Your task to perform on an android device: Search for "dell alienware" on newegg.com, select the first entry, add it to the cart, then select checkout. Image 0: 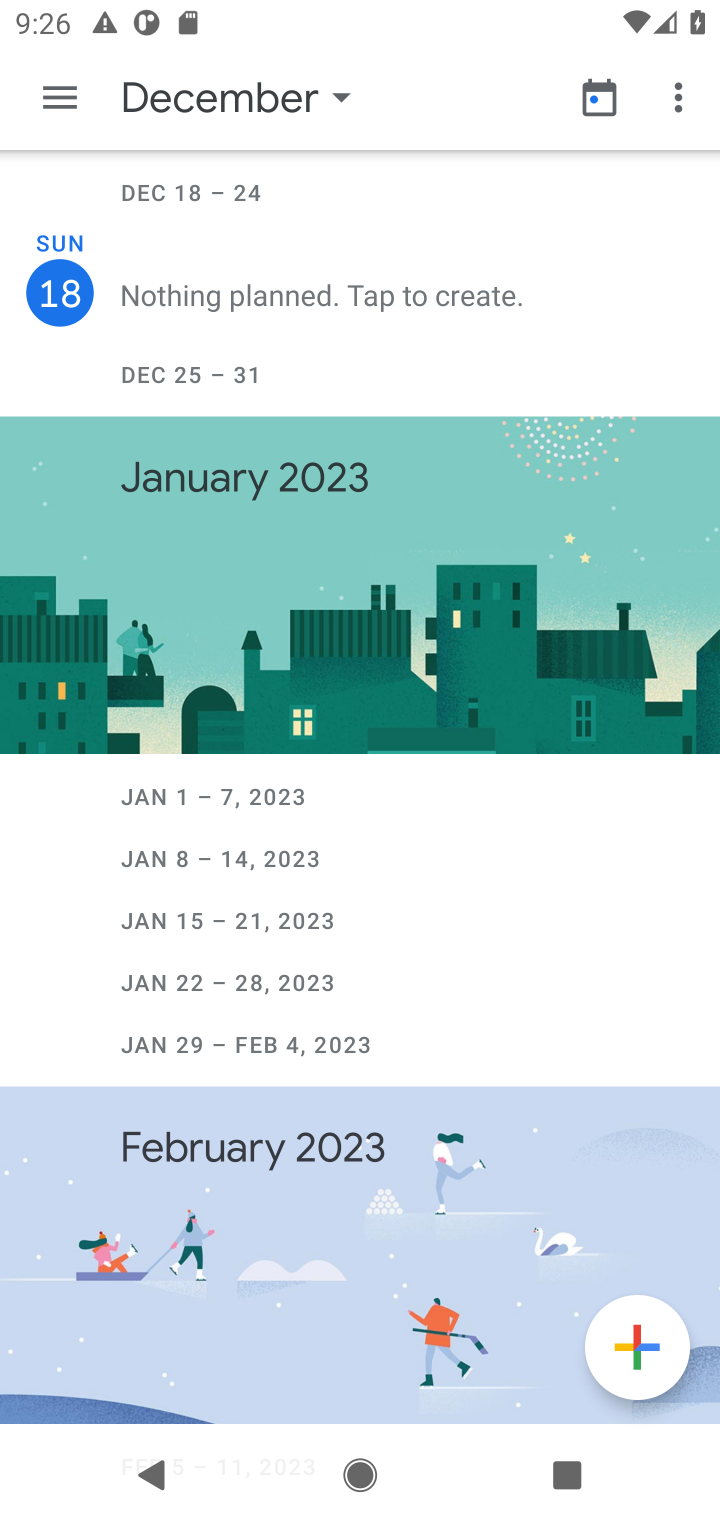
Step 0: press home button
Your task to perform on an android device: Search for "dell alienware" on newegg.com, select the first entry, add it to the cart, then select checkout. Image 1: 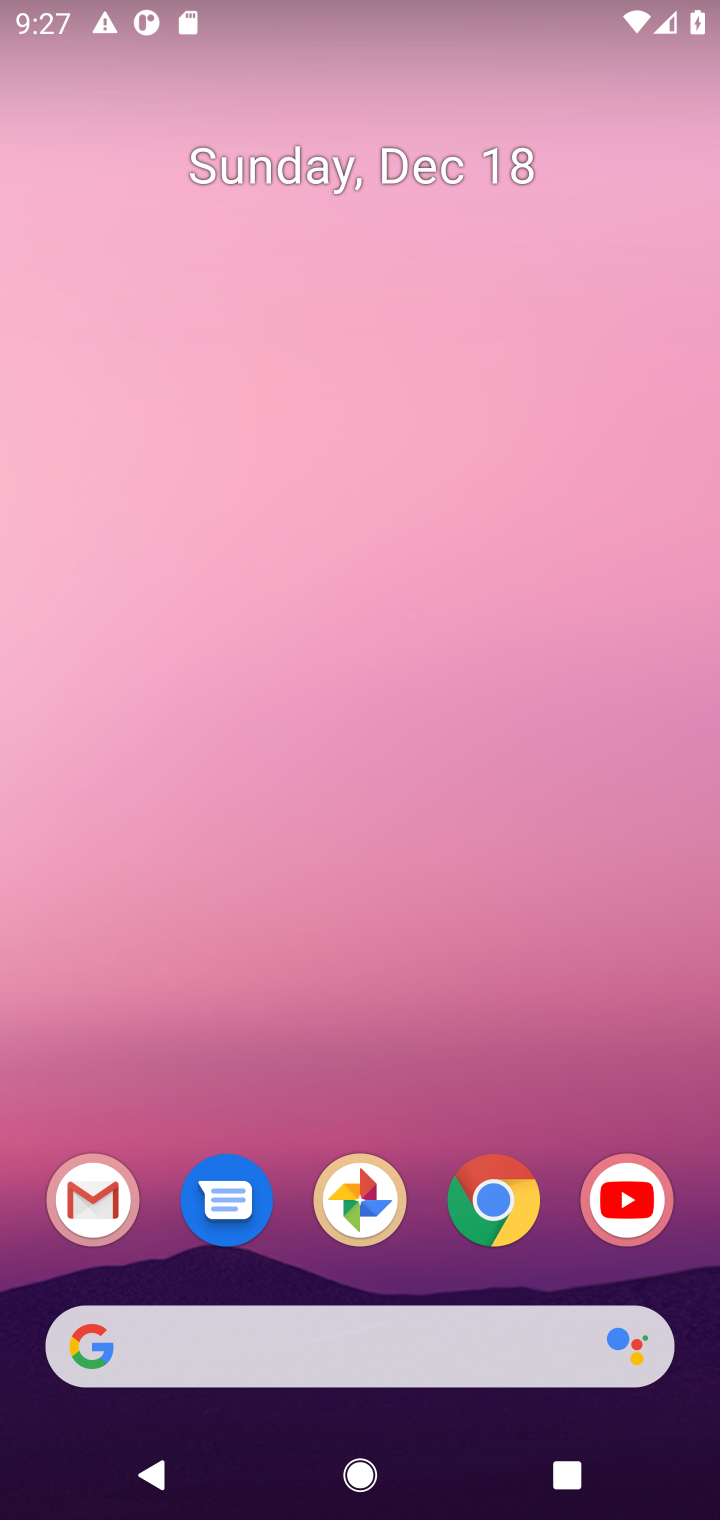
Step 1: click (497, 1214)
Your task to perform on an android device: Search for "dell alienware" on newegg.com, select the first entry, add it to the cart, then select checkout. Image 2: 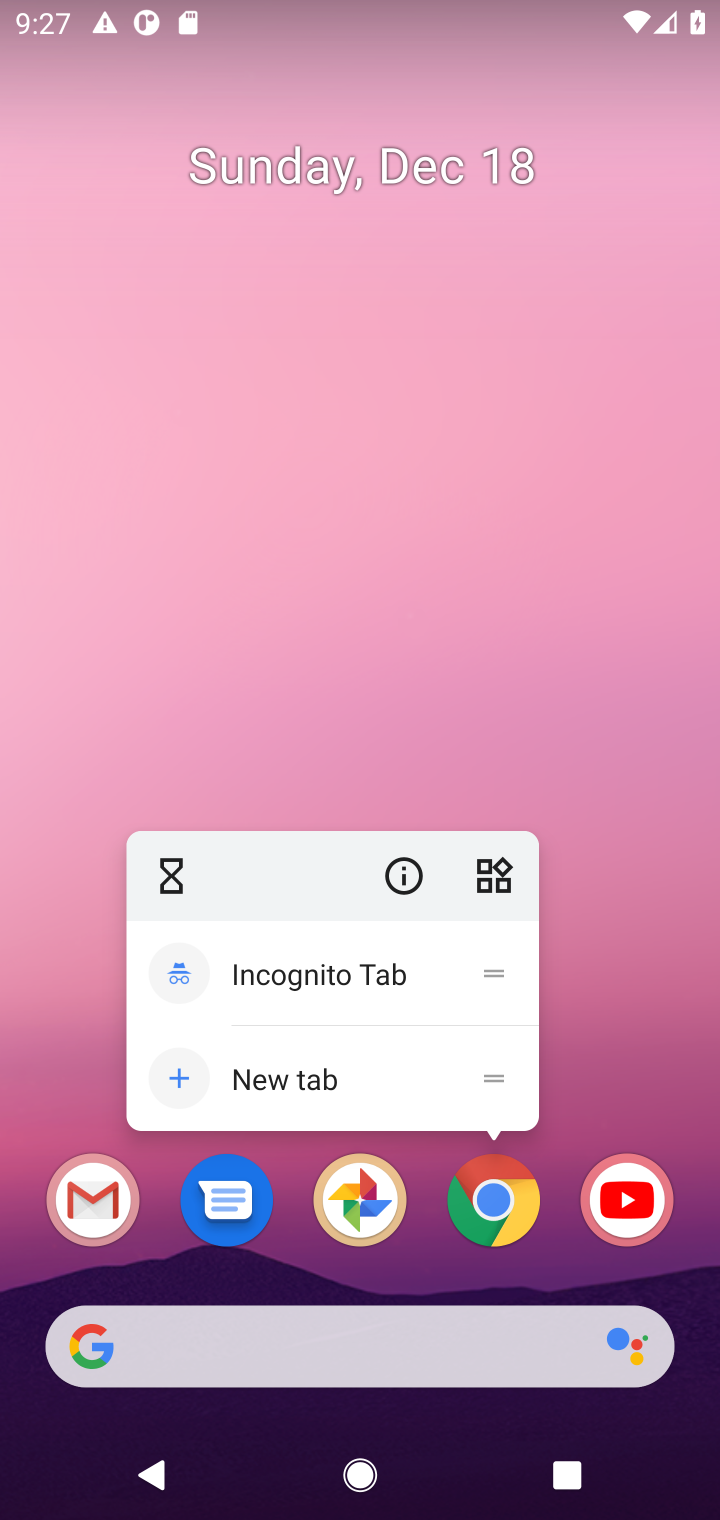
Step 2: click (497, 1214)
Your task to perform on an android device: Search for "dell alienware" on newegg.com, select the first entry, add it to the cart, then select checkout. Image 3: 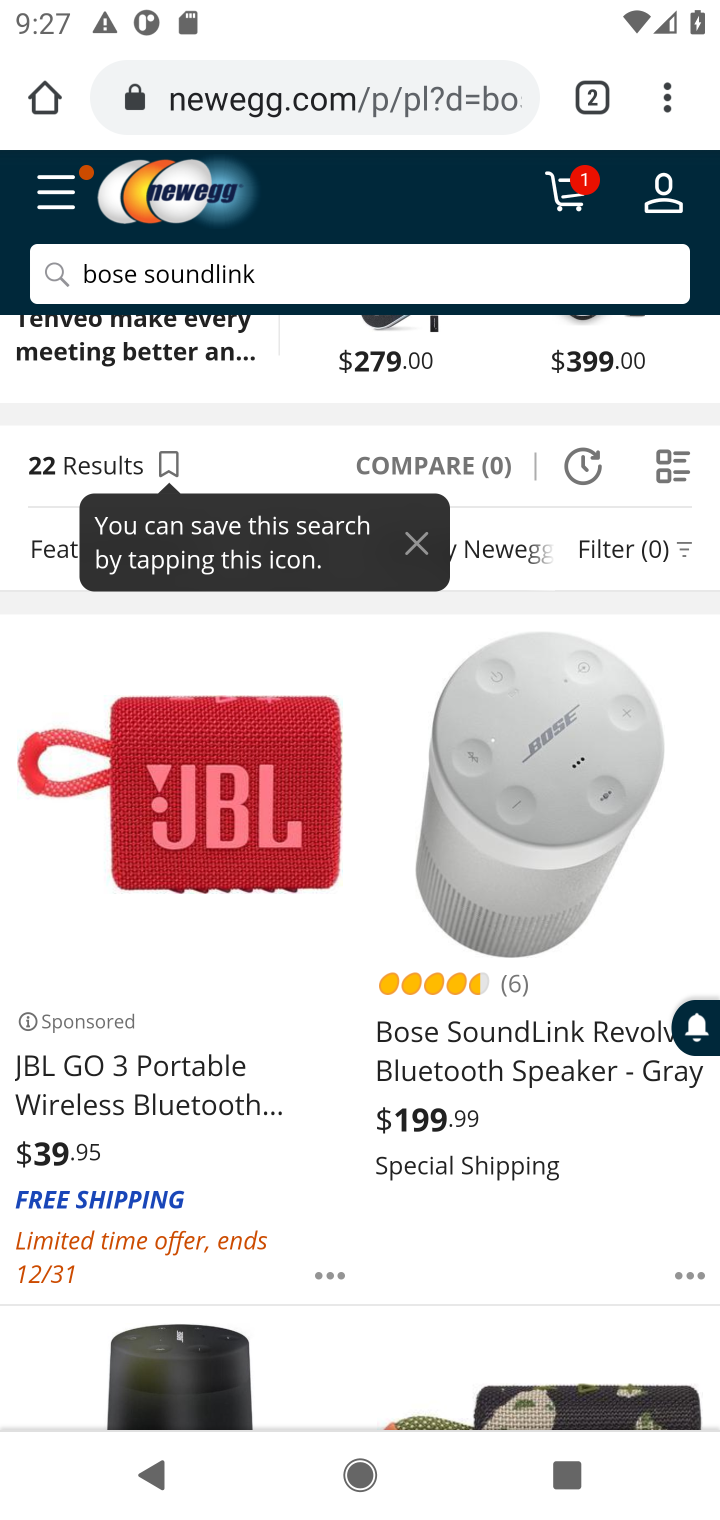
Step 3: click (254, 272)
Your task to perform on an android device: Search for "dell alienware" on newegg.com, select the first entry, add it to the cart, then select checkout. Image 4: 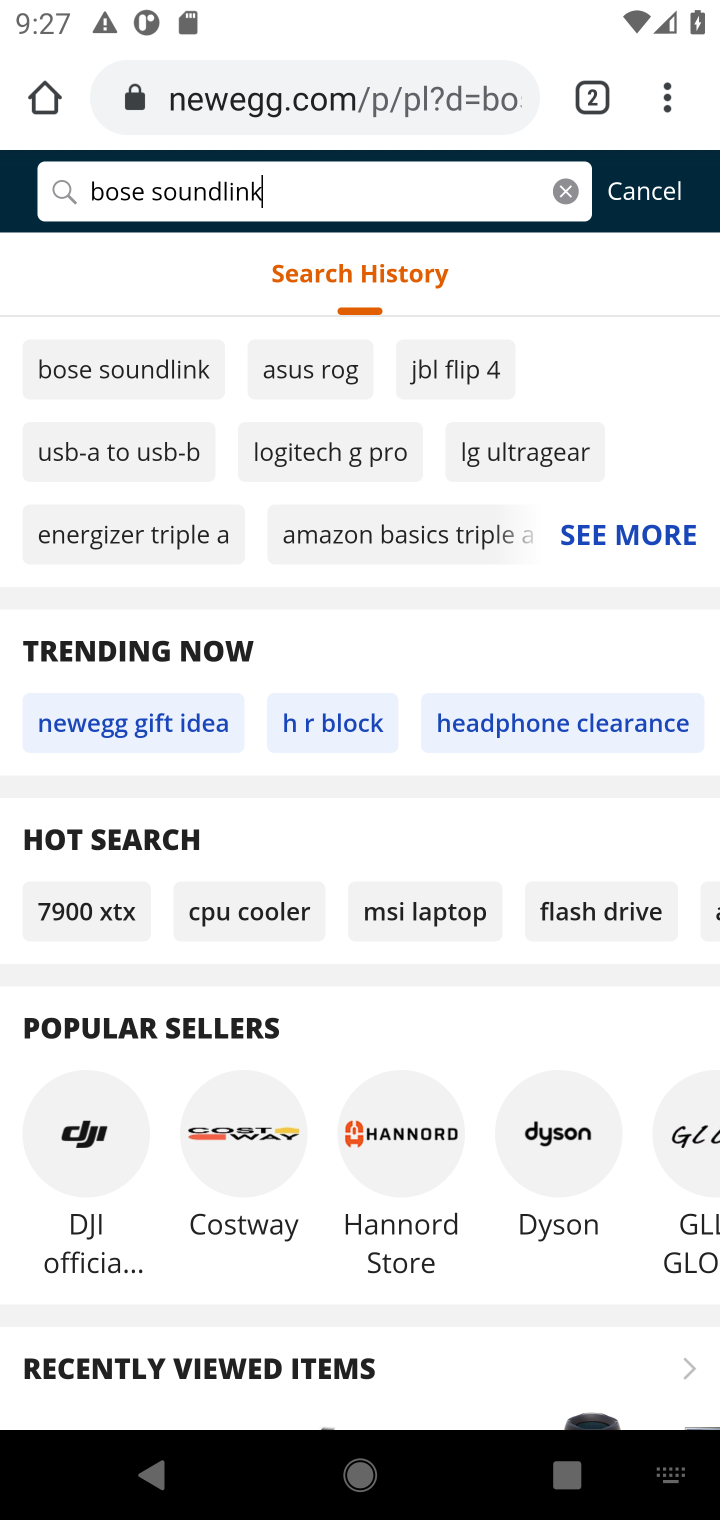
Step 4: click (568, 194)
Your task to perform on an android device: Search for "dell alienware" on newegg.com, select the first entry, add it to the cart, then select checkout. Image 5: 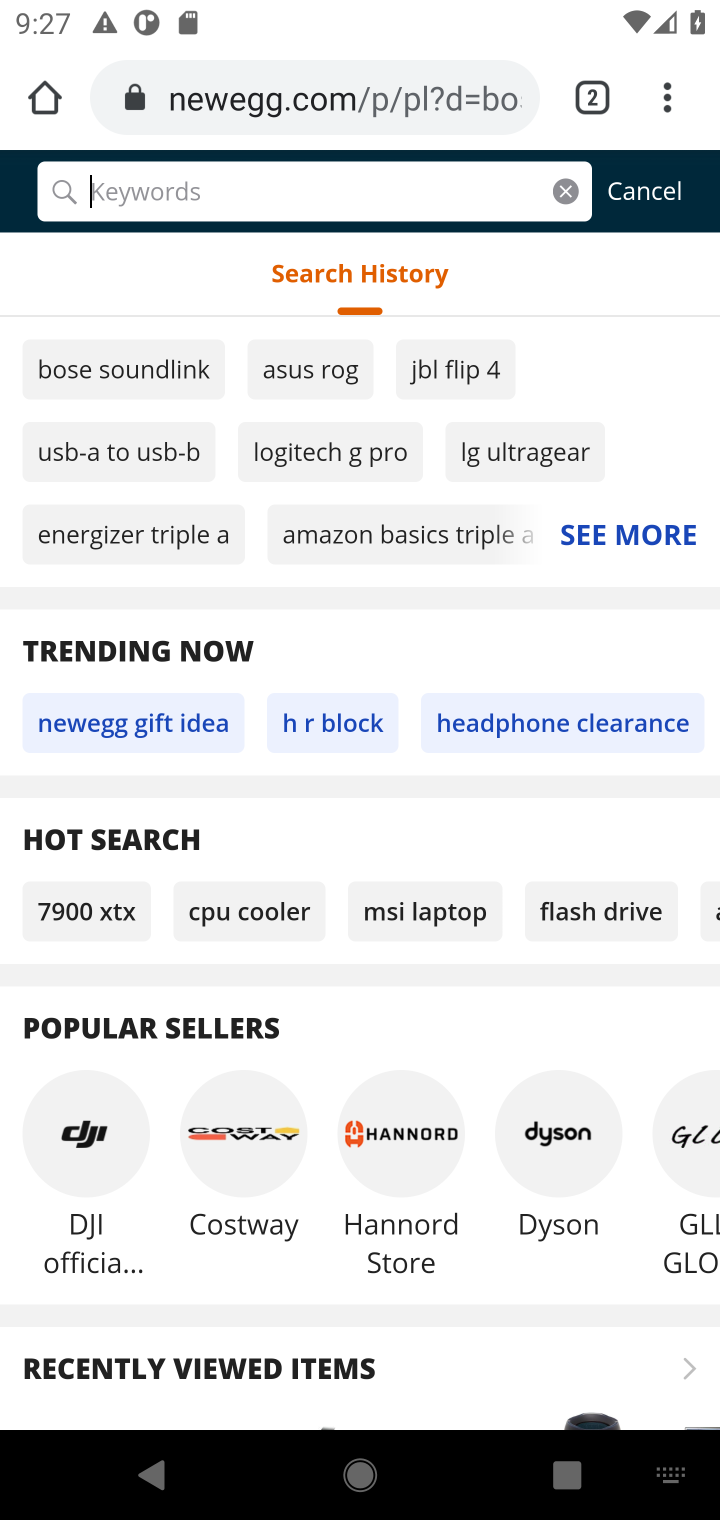
Step 5: click (104, 200)
Your task to perform on an android device: Search for "dell alienware" on newegg.com, select the first entry, add it to the cart, then select checkout. Image 6: 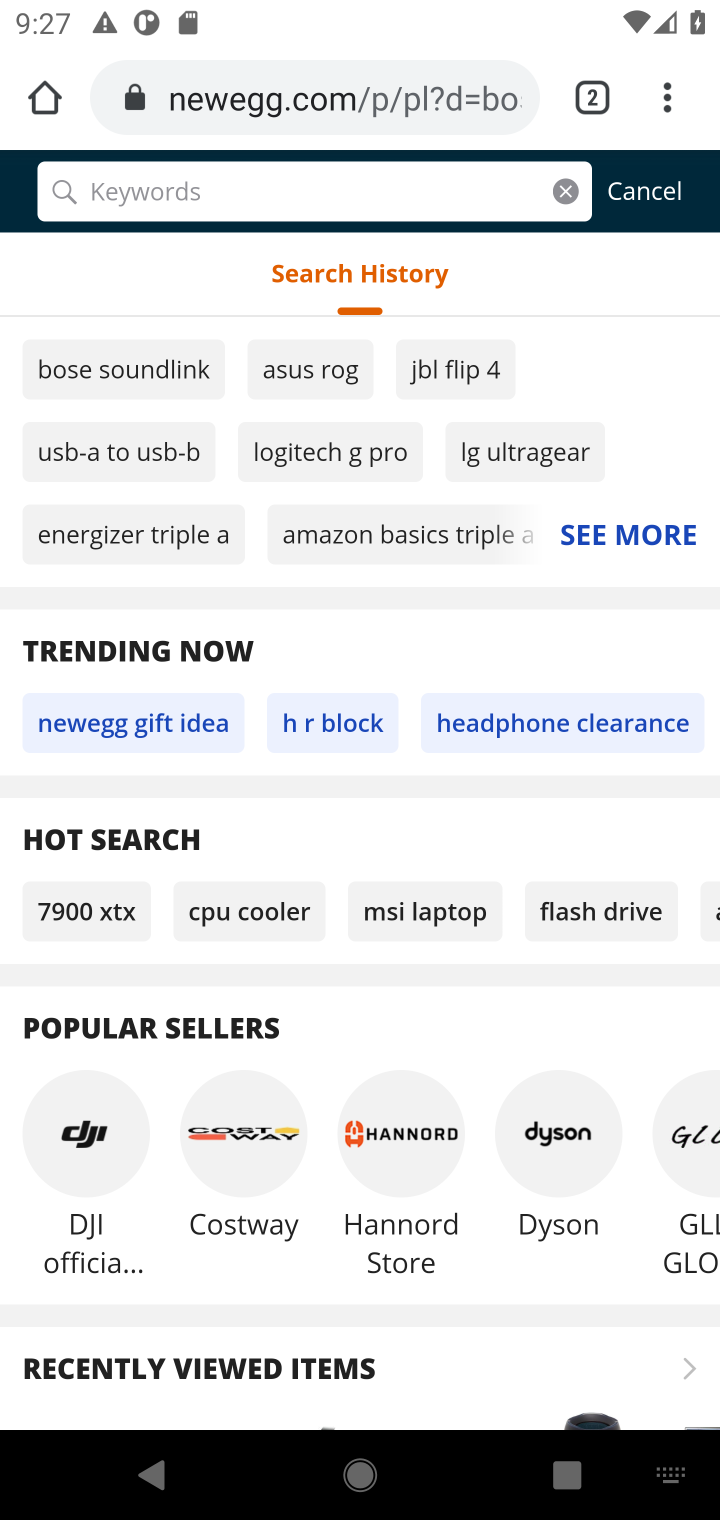
Step 6: type "dell alienware"
Your task to perform on an android device: Search for "dell alienware" on newegg.com, select the first entry, add it to the cart, then select checkout. Image 7: 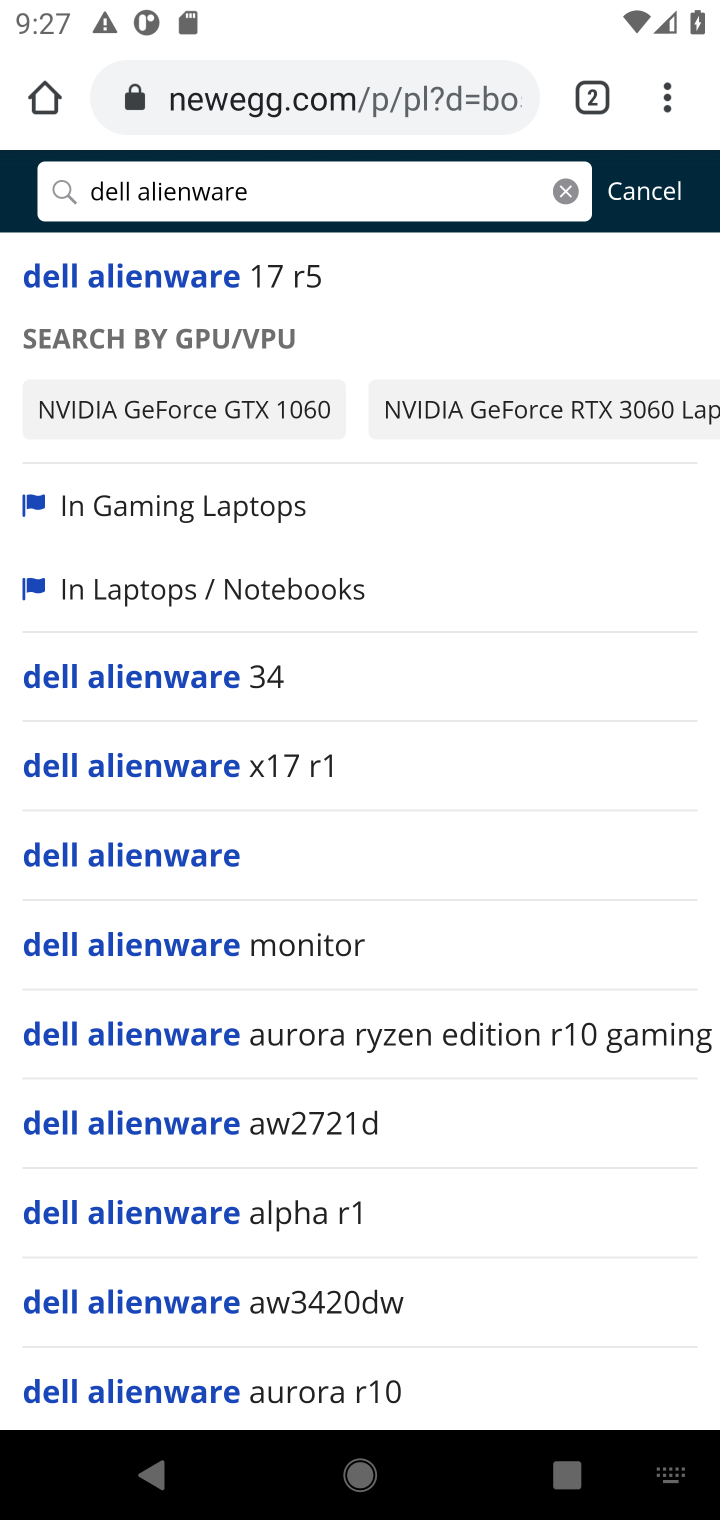
Step 7: click (110, 850)
Your task to perform on an android device: Search for "dell alienware" on newegg.com, select the first entry, add it to the cart, then select checkout. Image 8: 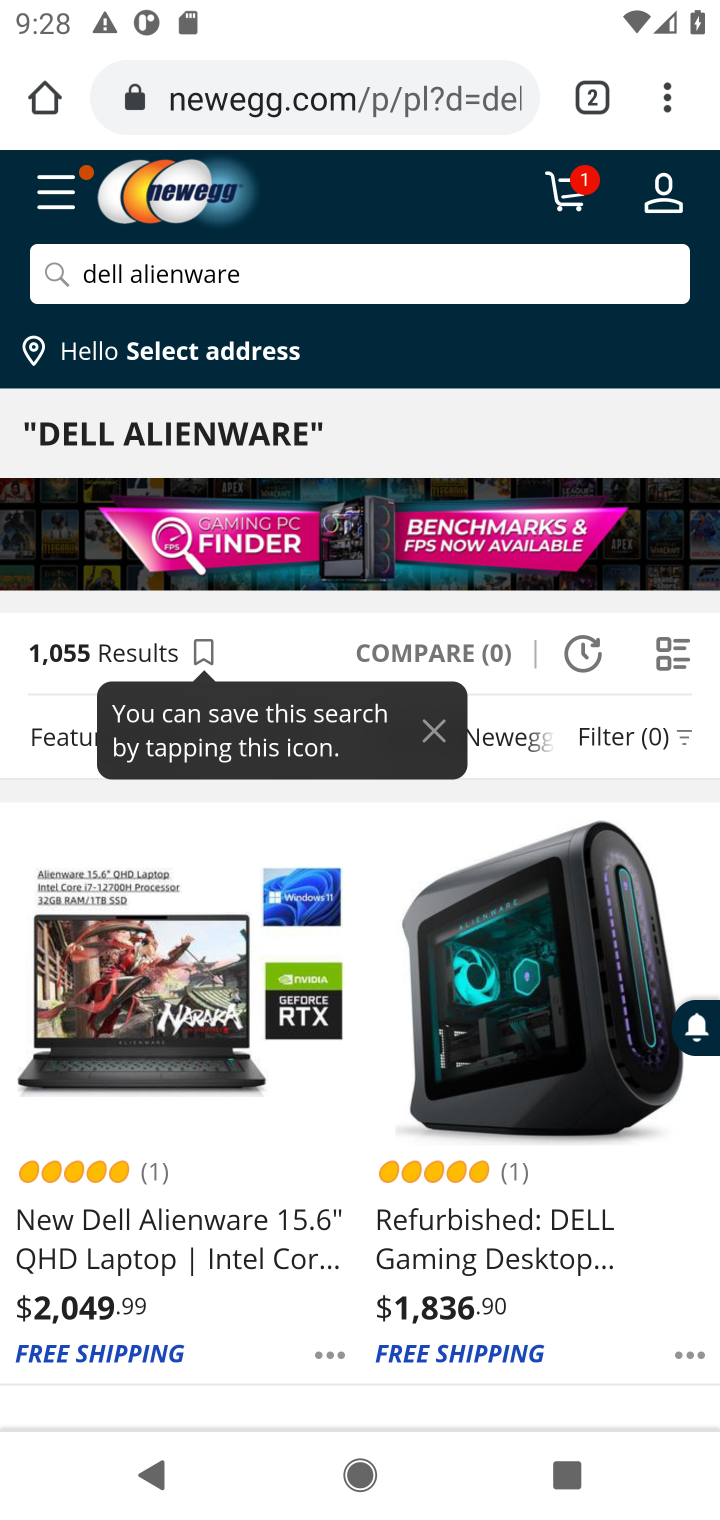
Step 8: drag from (134, 1009) to (148, 638)
Your task to perform on an android device: Search for "dell alienware" on newegg.com, select the first entry, add it to the cart, then select checkout. Image 9: 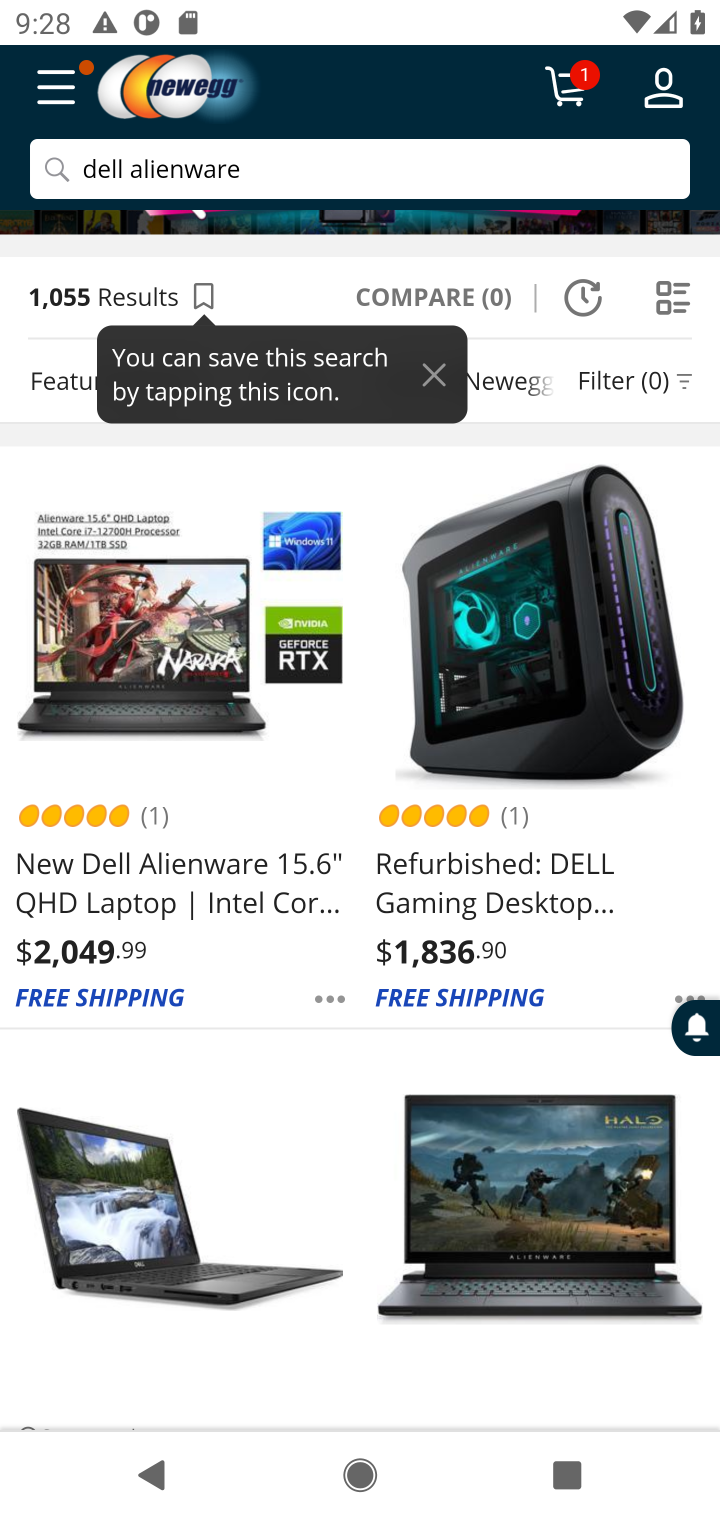
Step 9: click (164, 924)
Your task to perform on an android device: Search for "dell alienware" on newegg.com, select the first entry, add it to the cart, then select checkout. Image 10: 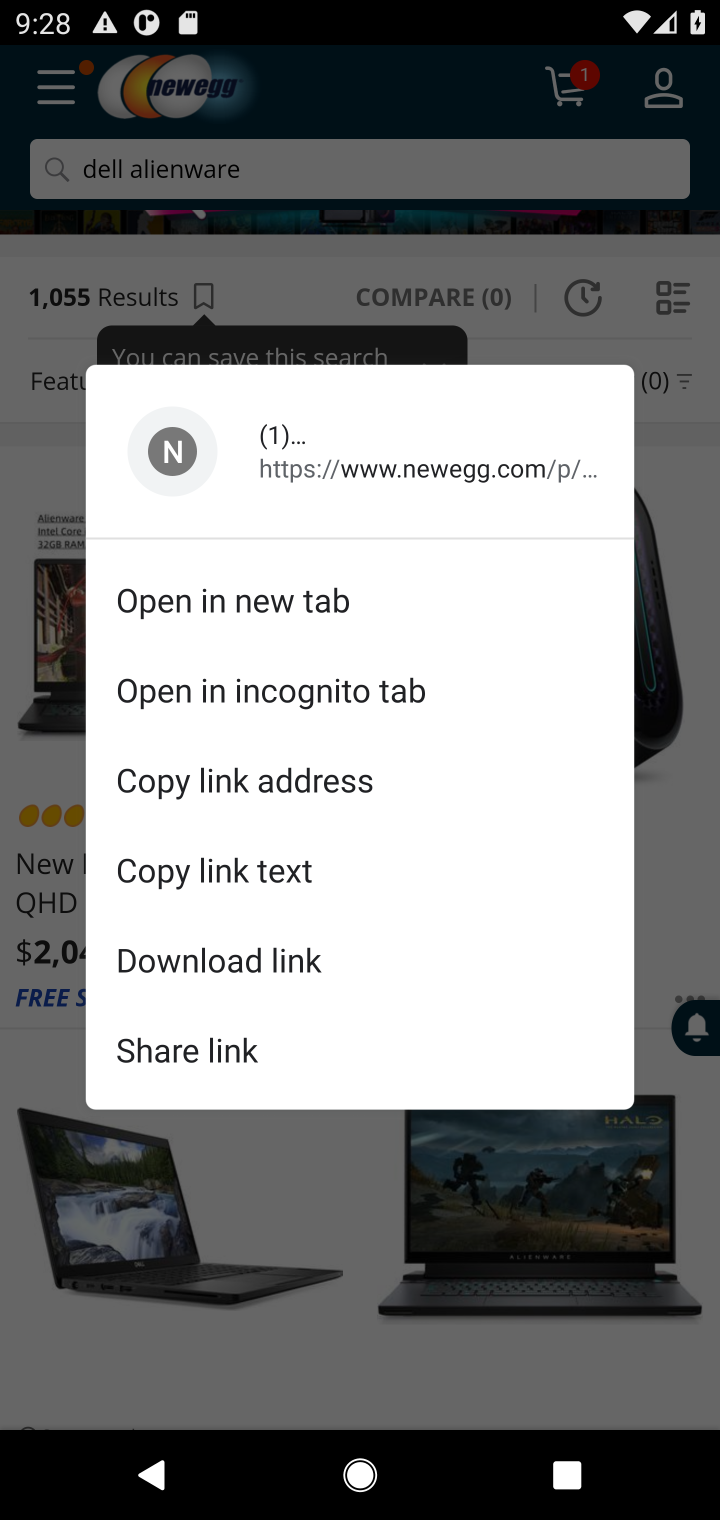
Step 10: click (57, 868)
Your task to perform on an android device: Search for "dell alienware" on newegg.com, select the first entry, add it to the cart, then select checkout. Image 11: 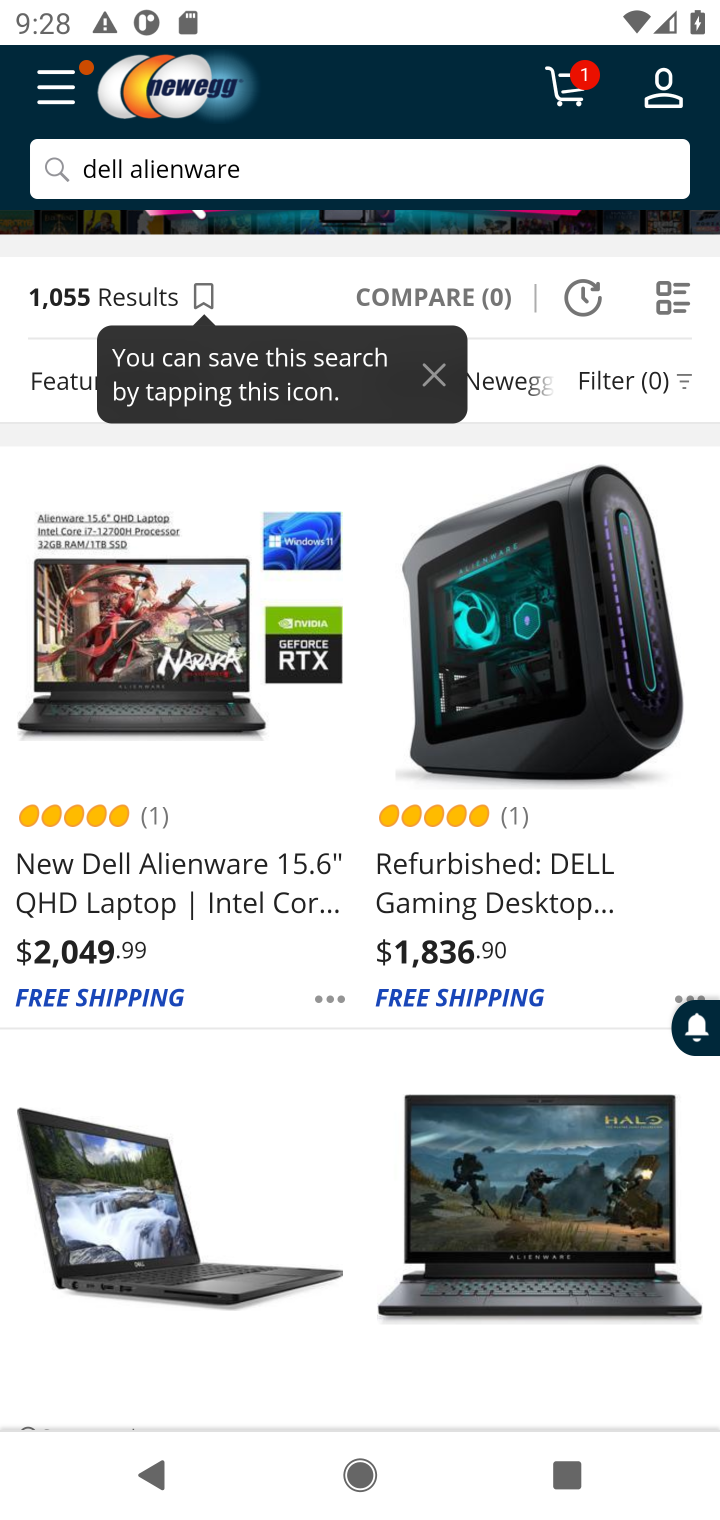
Step 11: click (91, 875)
Your task to perform on an android device: Search for "dell alienware" on newegg.com, select the first entry, add it to the cart, then select checkout. Image 12: 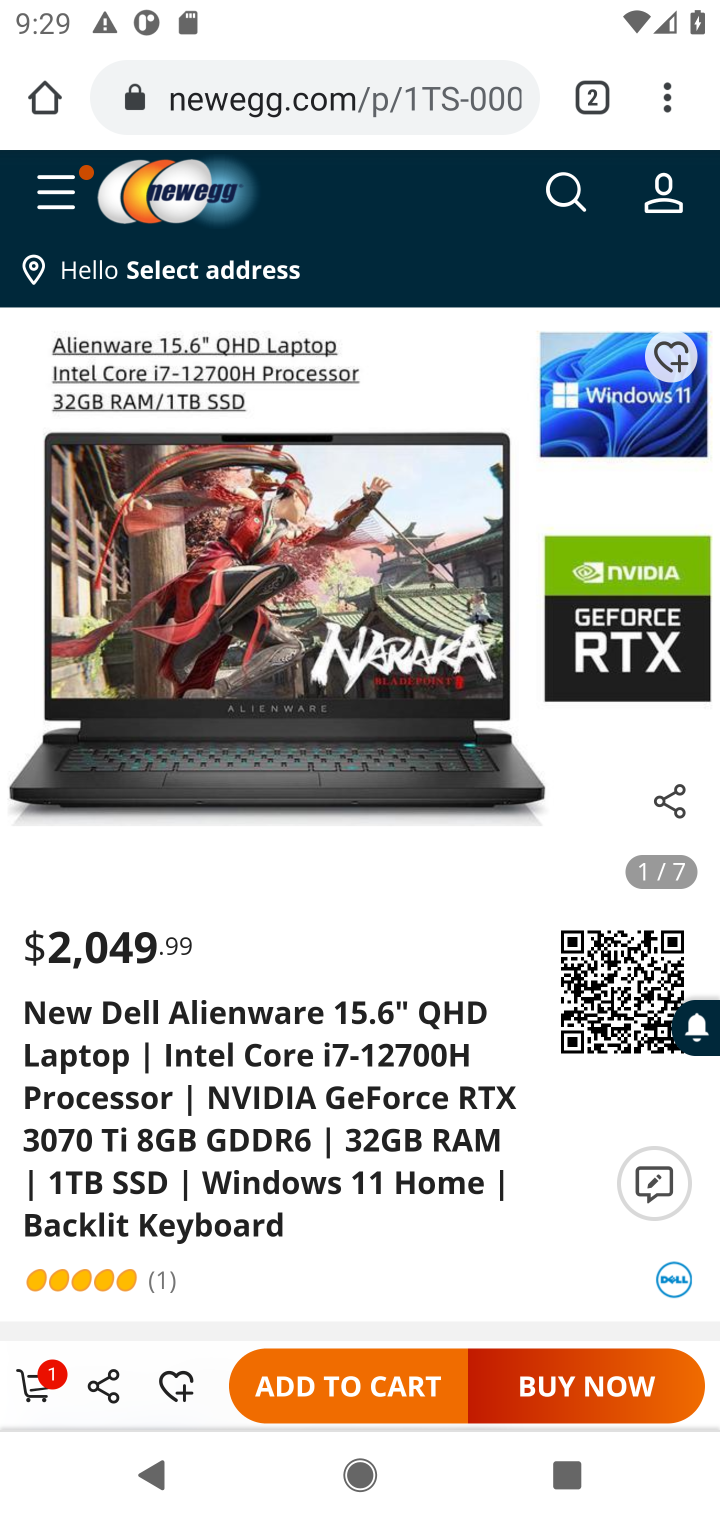
Step 12: click (316, 1387)
Your task to perform on an android device: Search for "dell alienware" on newegg.com, select the first entry, add it to the cart, then select checkout. Image 13: 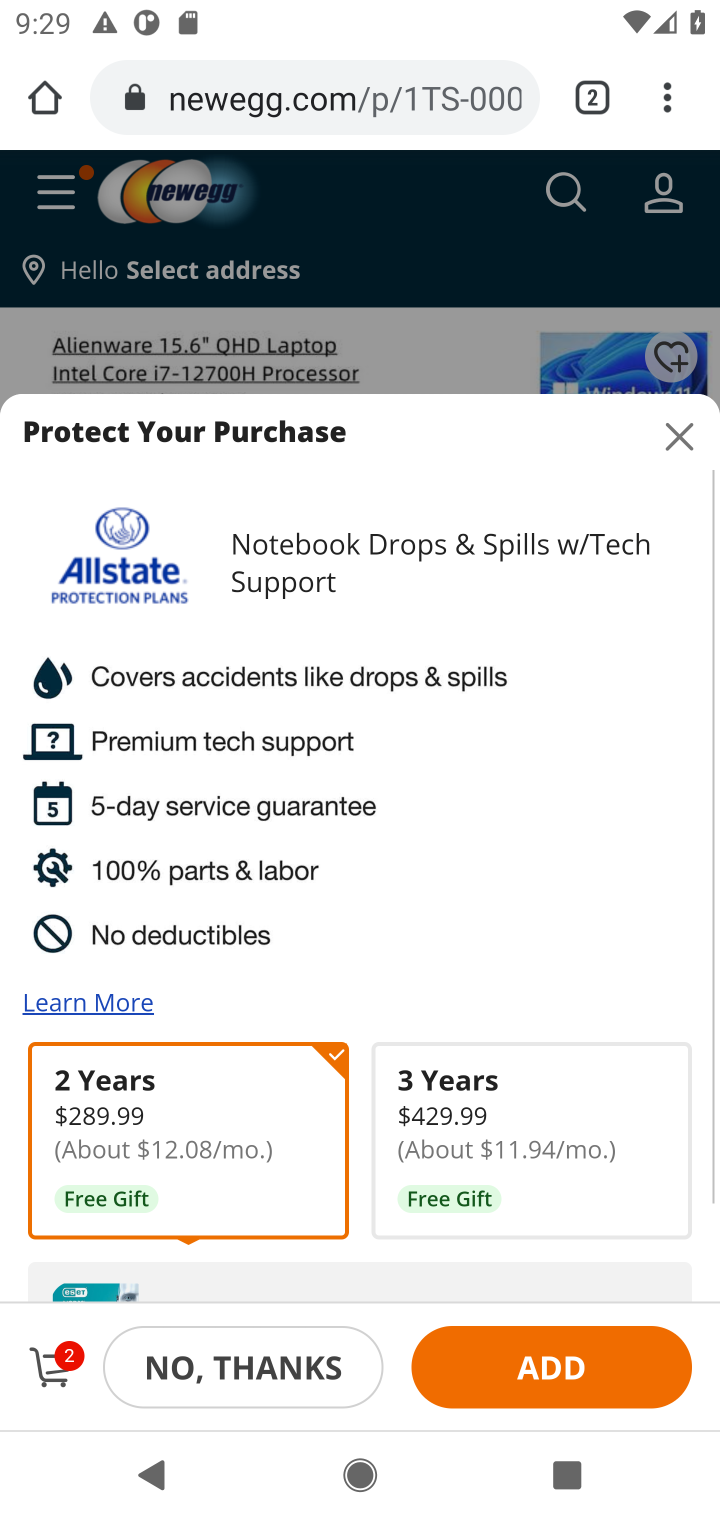
Step 13: click (77, 1354)
Your task to perform on an android device: Search for "dell alienware" on newegg.com, select the first entry, add it to the cart, then select checkout. Image 14: 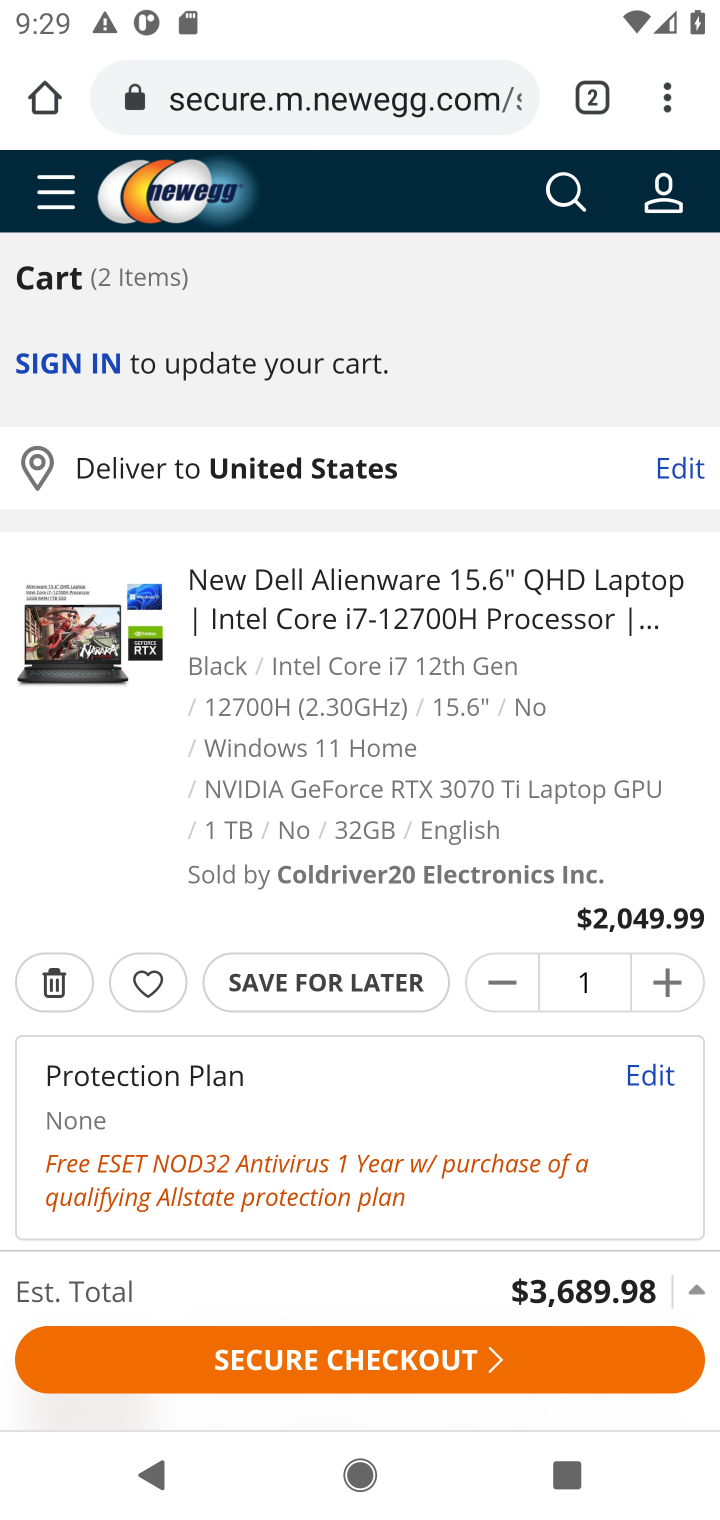
Step 14: click (111, 1356)
Your task to perform on an android device: Search for "dell alienware" on newegg.com, select the first entry, add it to the cart, then select checkout. Image 15: 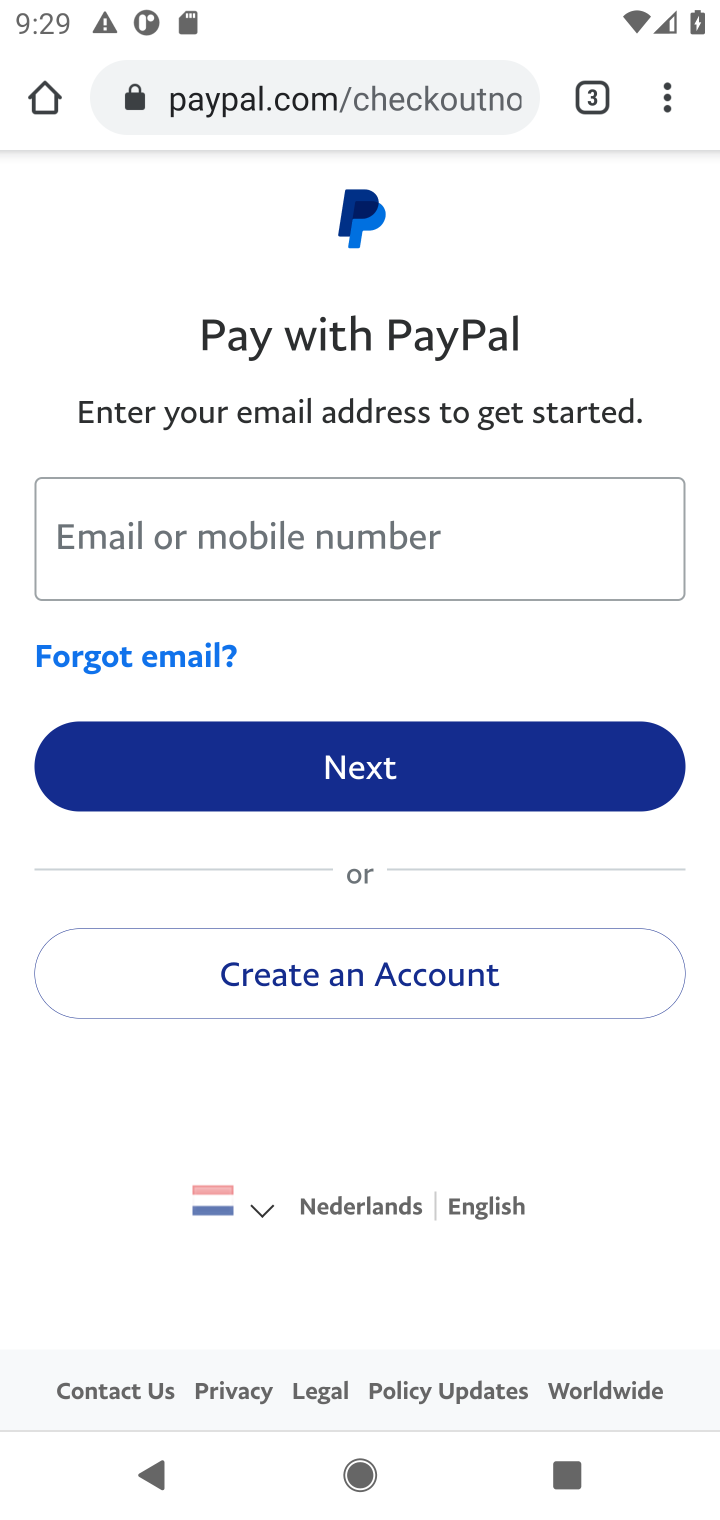
Step 15: task complete